Your task to perform on an android device: toggle data saver in the chrome app Image 0: 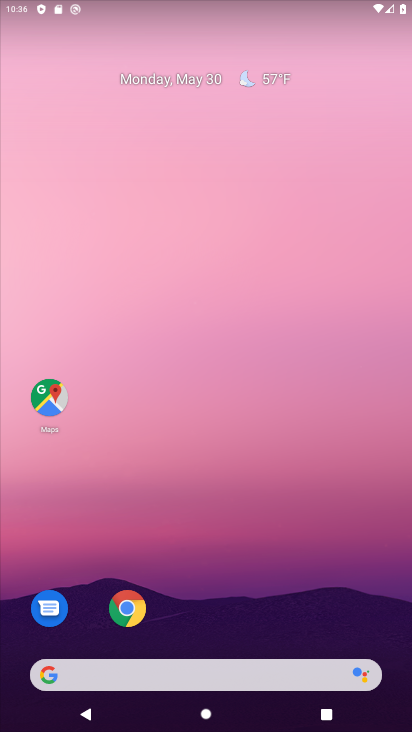
Step 0: drag from (259, 535) to (213, 7)
Your task to perform on an android device: toggle data saver in the chrome app Image 1: 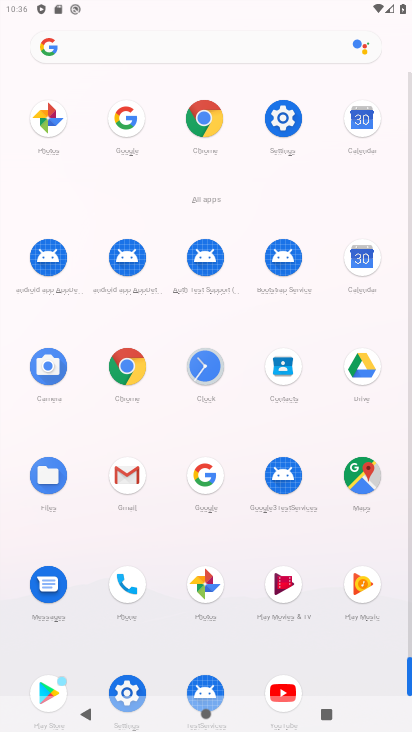
Step 1: drag from (12, 560) to (18, 244)
Your task to perform on an android device: toggle data saver in the chrome app Image 2: 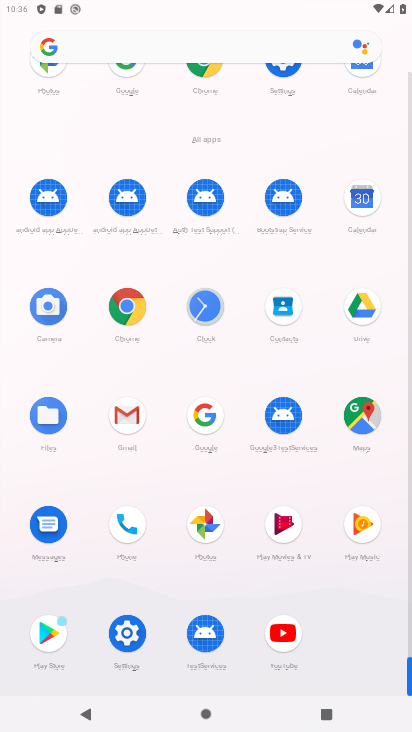
Step 2: click (127, 304)
Your task to perform on an android device: toggle data saver in the chrome app Image 3: 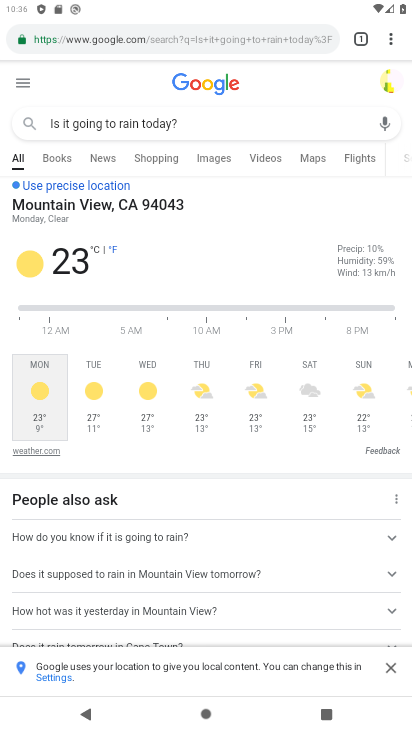
Step 3: drag from (389, 39) to (255, 474)
Your task to perform on an android device: toggle data saver in the chrome app Image 4: 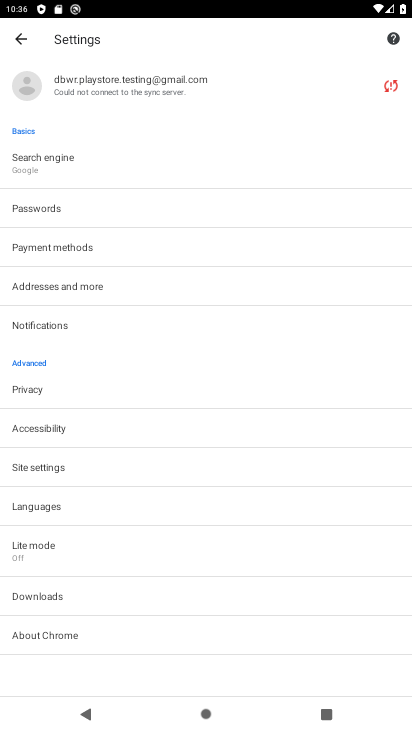
Step 4: click (71, 462)
Your task to perform on an android device: toggle data saver in the chrome app Image 5: 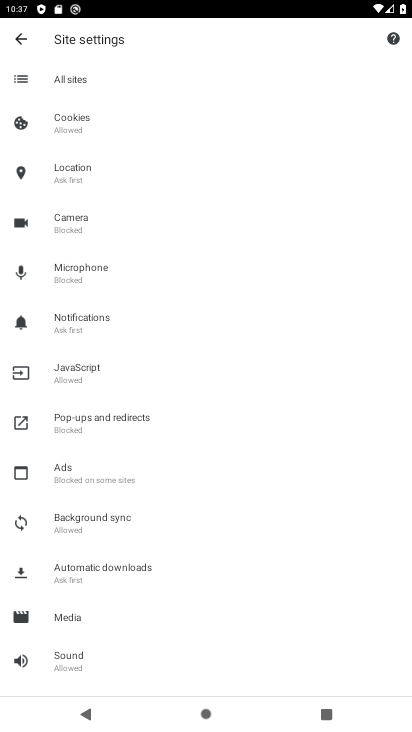
Step 5: click (23, 35)
Your task to perform on an android device: toggle data saver in the chrome app Image 6: 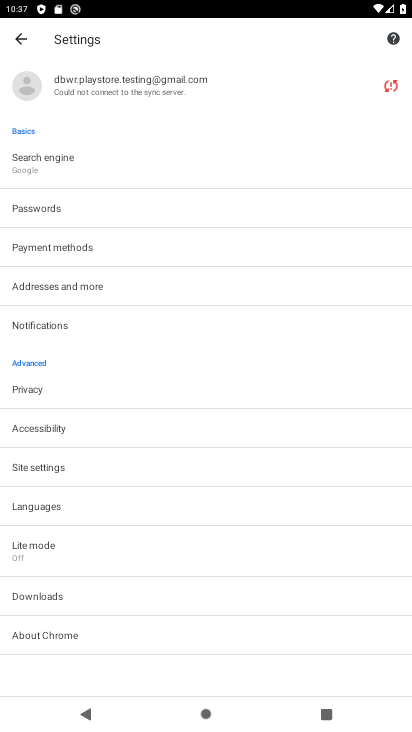
Step 6: click (62, 551)
Your task to perform on an android device: toggle data saver in the chrome app Image 7: 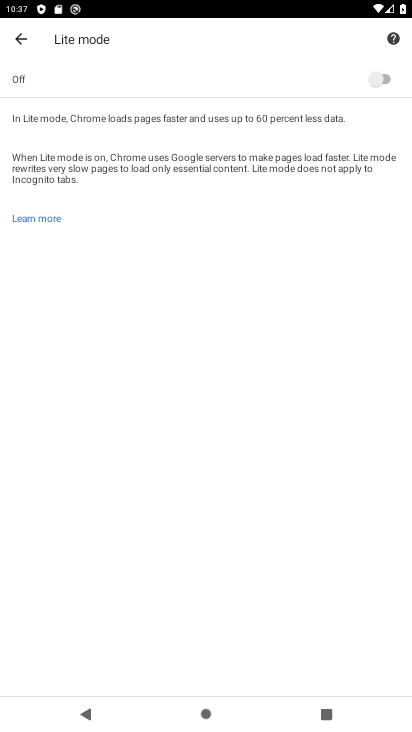
Step 7: click (364, 72)
Your task to perform on an android device: toggle data saver in the chrome app Image 8: 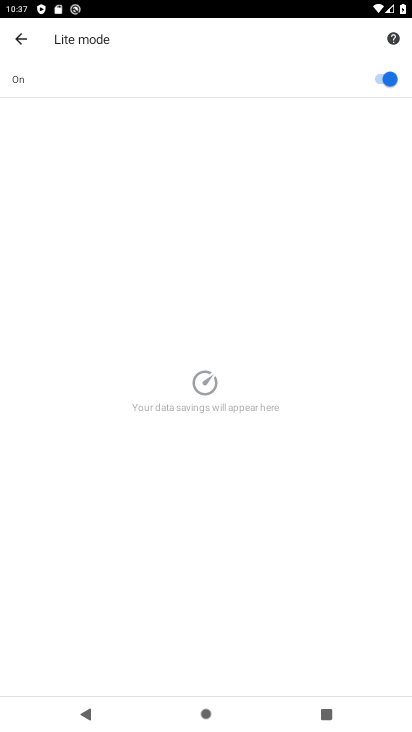
Step 8: task complete